Your task to perform on an android device: Open battery settings Image 0: 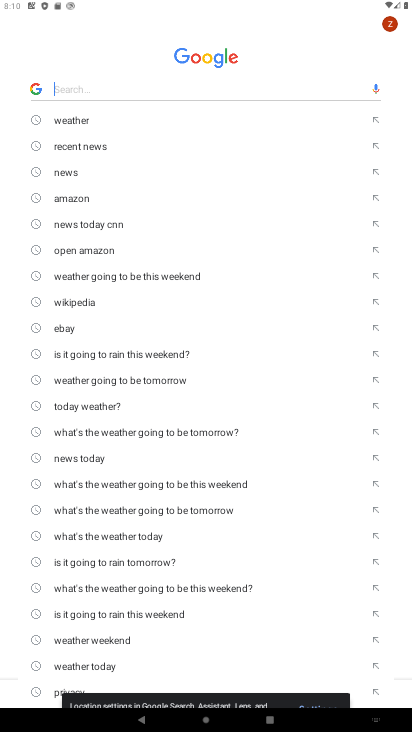
Step 0: press home button
Your task to perform on an android device: Open battery settings Image 1: 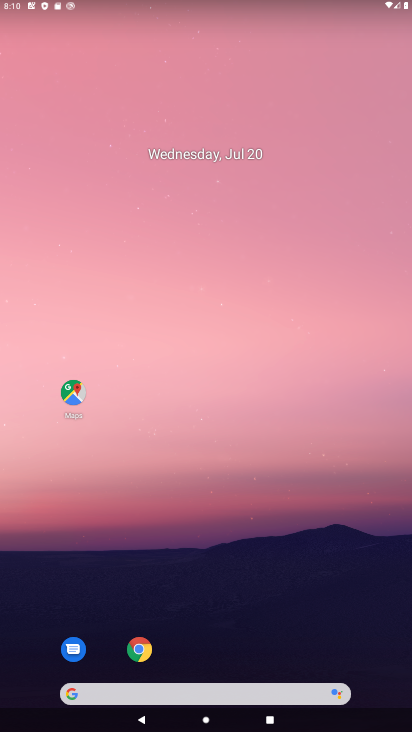
Step 1: drag from (229, 674) to (168, 0)
Your task to perform on an android device: Open battery settings Image 2: 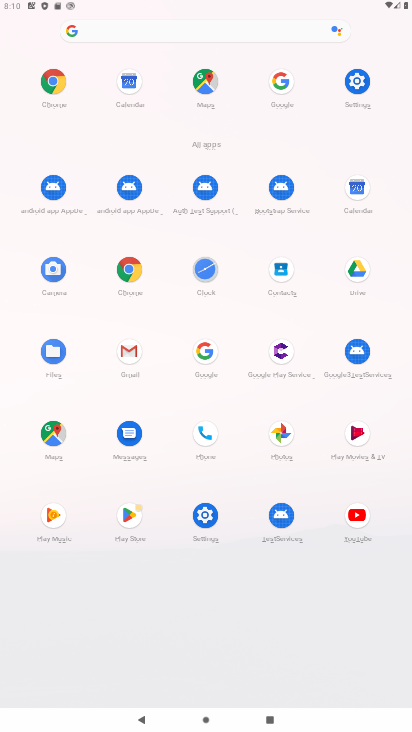
Step 2: click (359, 75)
Your task to perform on an android device: Open battery settings Image 3: 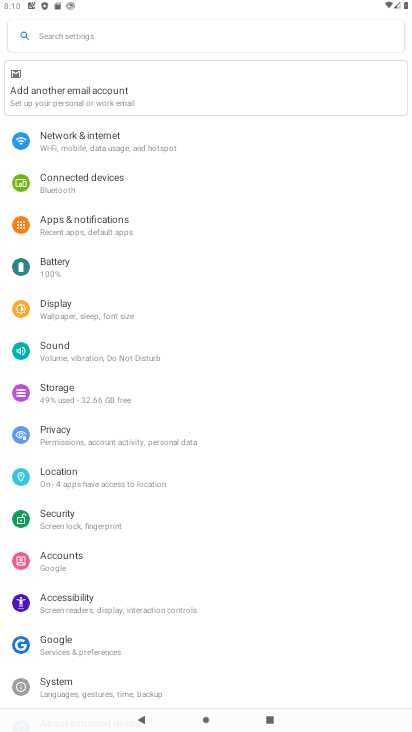
Step 3: click (38, 272)
Your task to perform on an android device: Open battery settings Image 4: 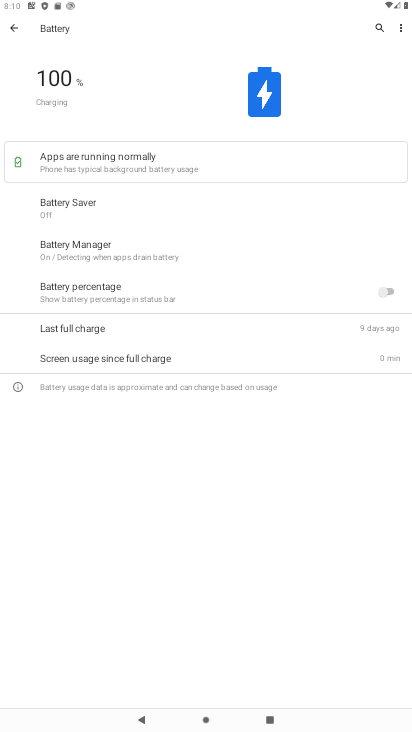
Step 4: task complete